Your task to perform on an android device: open chrome privacy settings Image 0: 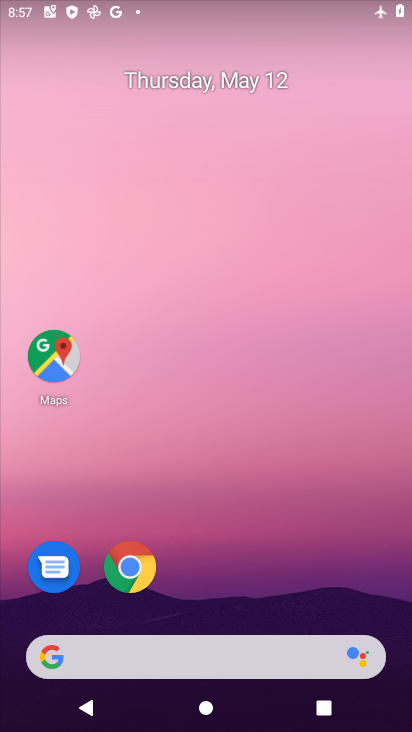
Step 0: drag from (175, 536) to (225, 167)
Your task to perform on an android device: open chrome privacy settings Image 1: 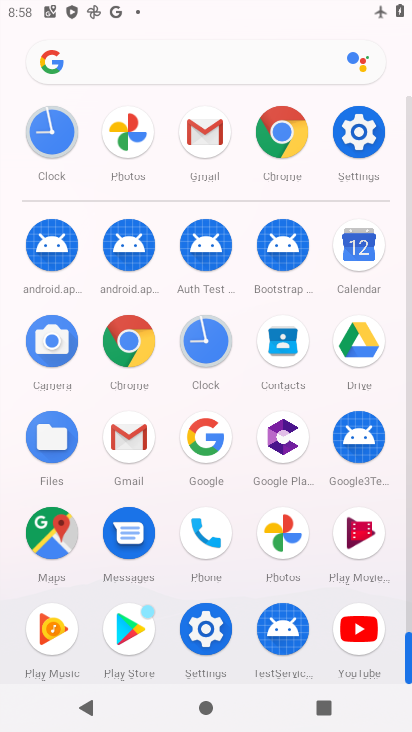
Step 1: click (362, 164)
Your task to perform on an android device: open chrome privacy settings Image 2: 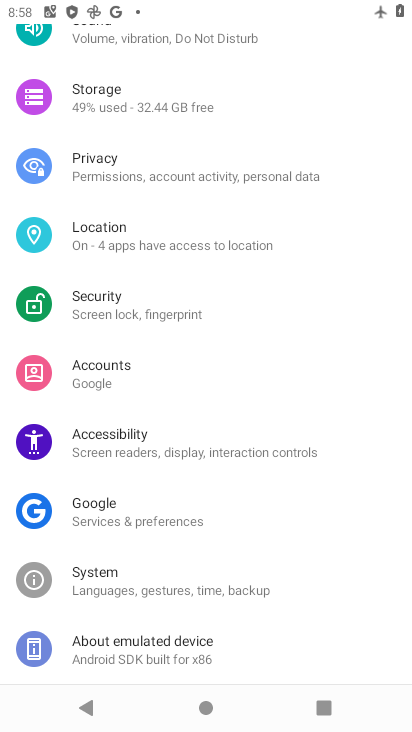
Step 2: press home button
Your task to perform on an android device: open chrome privacy settings Image 3: 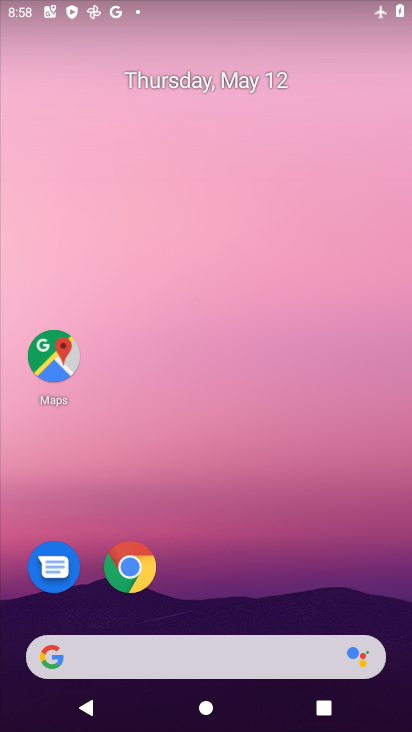
Step 3: click (147, 579)
Your task to perform on an android device: open chrome privacy settings Image 4: 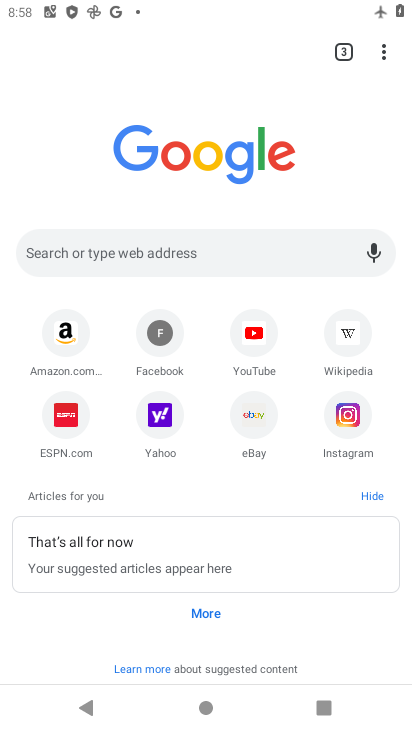
Step 4: click (385, 61)
Your task to perform on an android device: open chrome privacy settings Image 5: 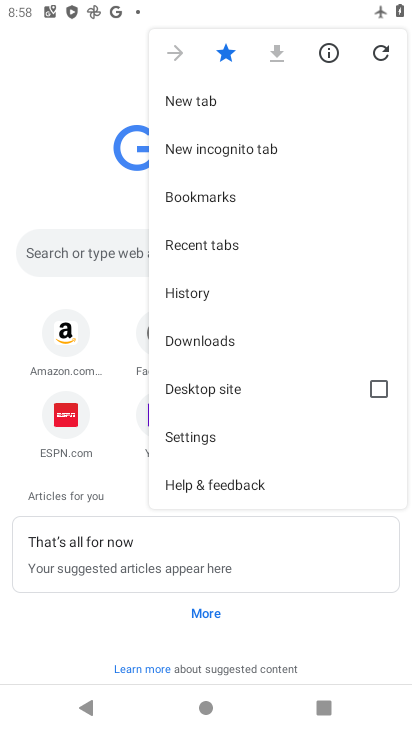
Step 5: click (210, 432)
Your task to perform on an android device: open chrome privacy settings Image 6: 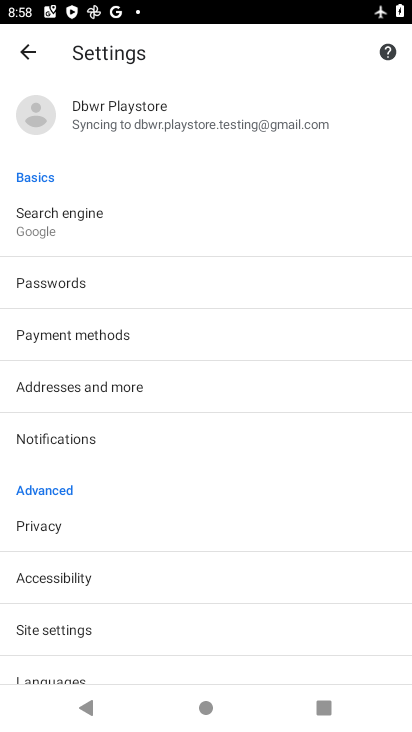
Step 6: click (51, 527)
Your task to perform on an android device: open chrome privacy settings Image 7: 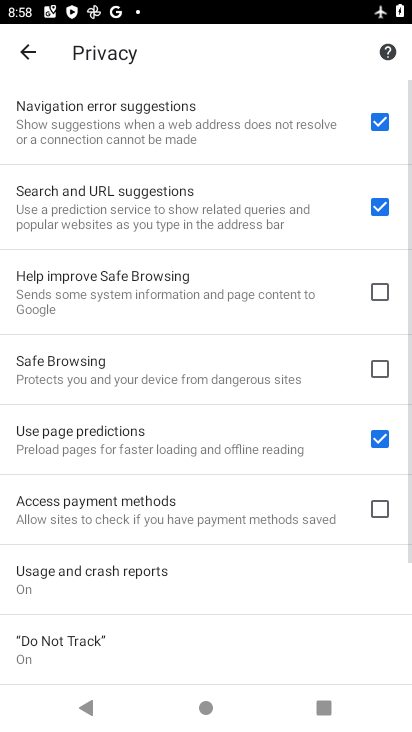
Step 7: task complete